Your task to perform on an android device: Turn on the flashlight Image 0: 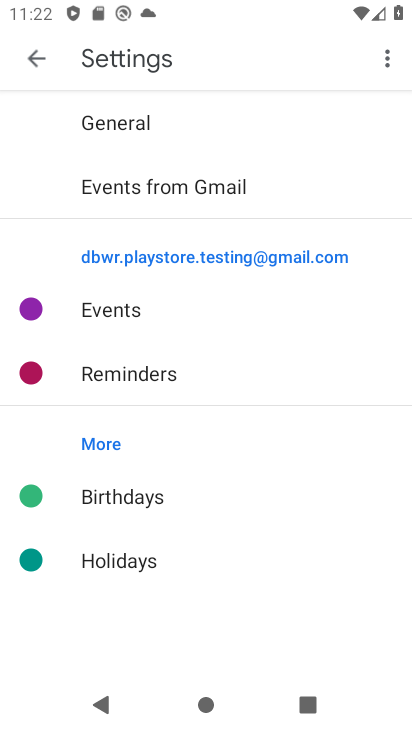
Step 0: press back button
Your task to perform on an android device: Turn on the flashlight Image 1: 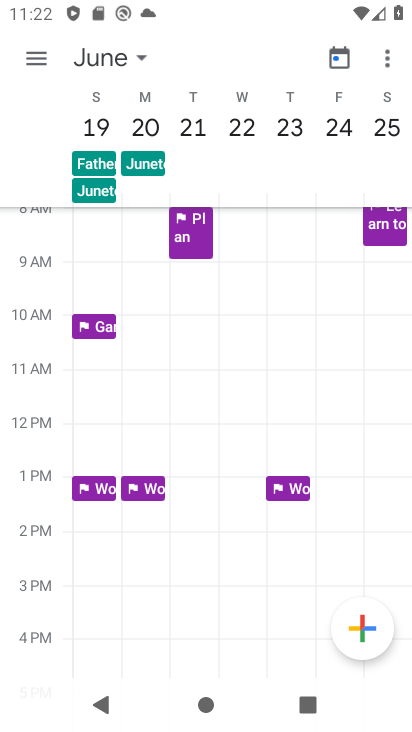
Step 1: press back button
Your task to perform on an android device: Turn on the flashlight Image 2: 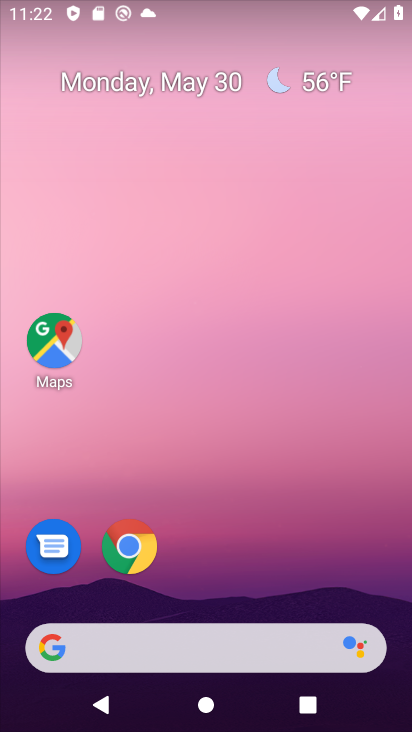
Step 2: drag from (263, 510) to (300, 238)
Your task to perform on an android device: Turn on the flashlight Image 3: 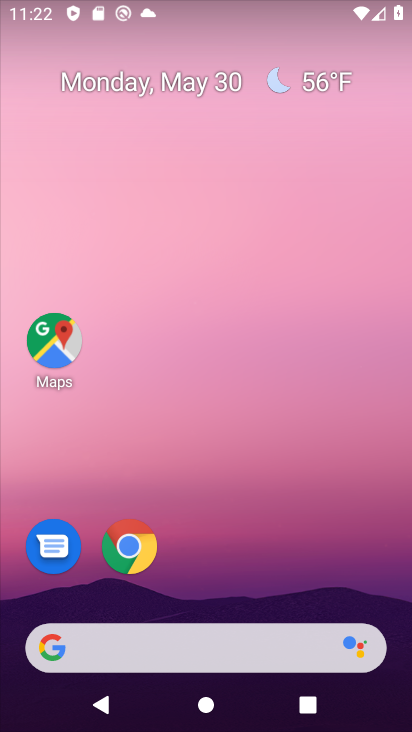
Step 3: drag from (273, 581) to (284, 44)
Your task to perform on an android device: Turn on the flashlight Image 4: 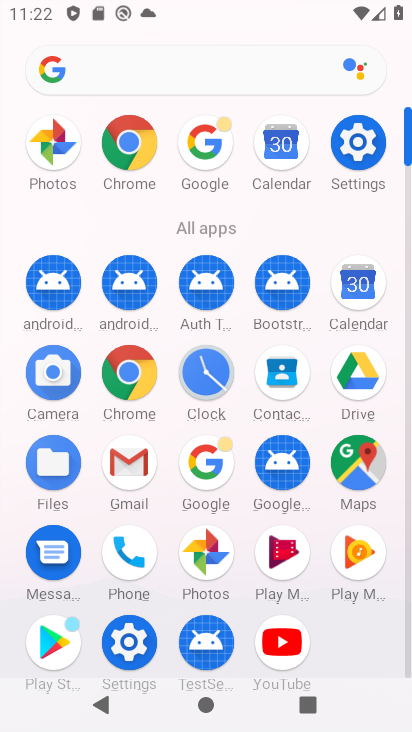
Step 4: click (128, 641)
Your task to perform on an android device: Turn on the flashlight Image 5: 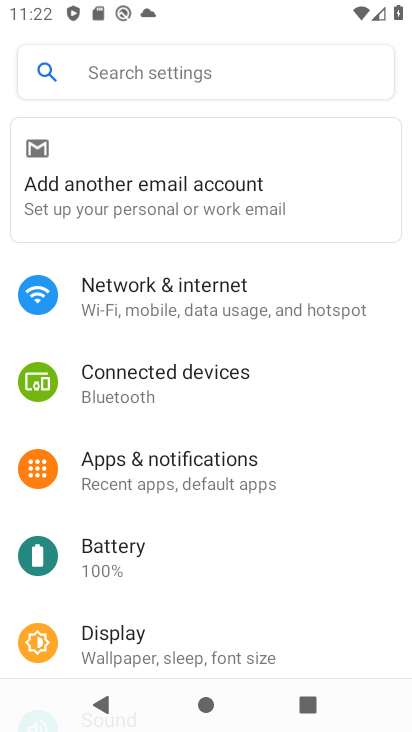
Step 5: drag from (183, 528) to (208, 434)
Your task to perform on an android device: Turn on the flashlight Image 6: 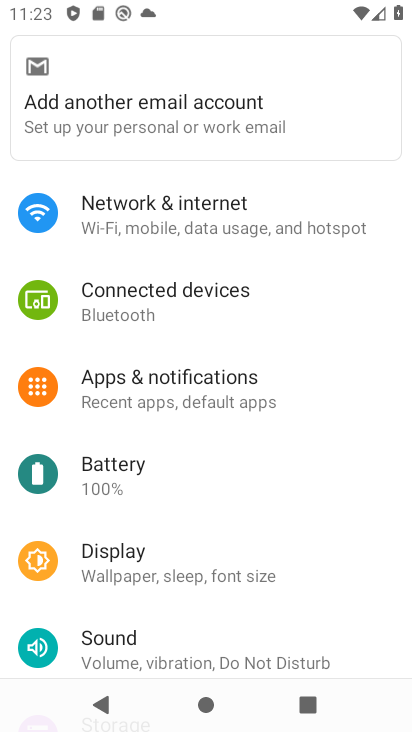
Step 6: drag from (213, 559) to (232, 474)
Your task to perform on an android device: Turn on the flashlight Image 7: 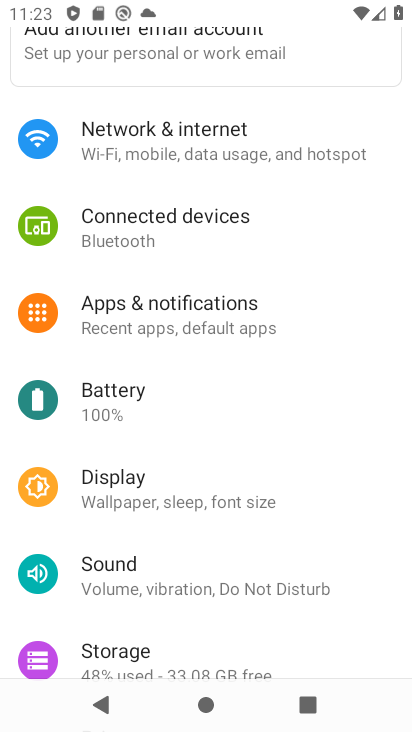
Step 7: drag from (199, 561) to (276, 440)
Your task to perform on an android device: Turn on the flashlight Image 8: 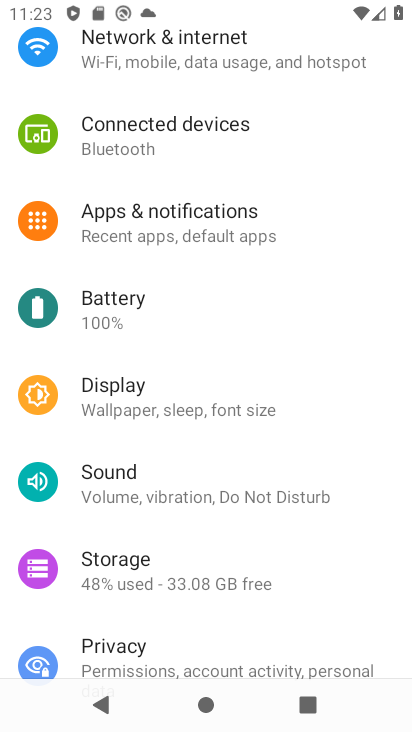
Step 8: drag from (205, 639) to (263, 517)
Your task to perform on an android device: Turn on the flashlight Image 9: 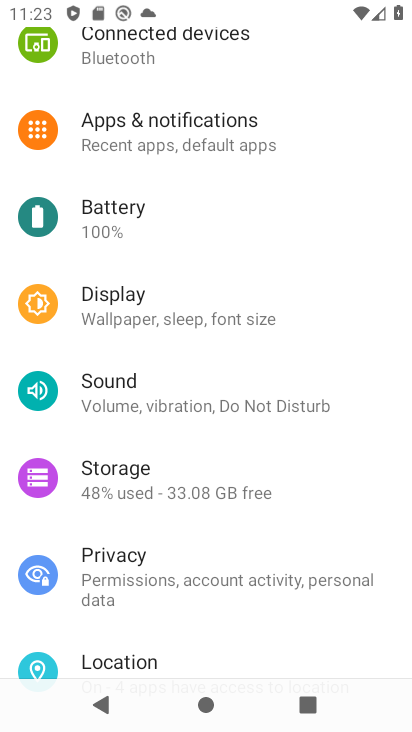
Step 9: drag from (222, 626) to (254, 512)
Your task to perform on an android device: Turn on the flashlight Image 10: 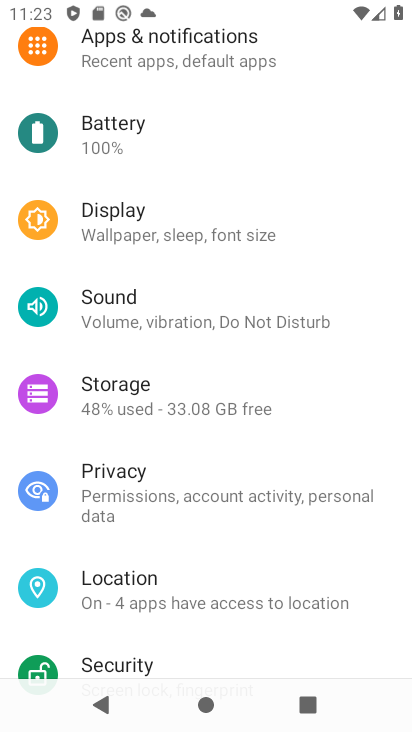
Step 10: drag from (222, 622) to (259, 516)
Your task to perform on an android device: Turn on the flashlight Image 11: 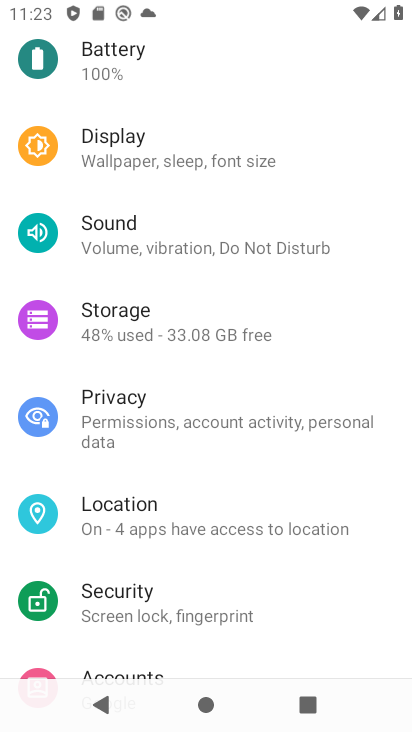
Step 11: drag from (195, 584) to (247, 475)
Your task to perform on an android device: Turn on the flashlight Image 12: 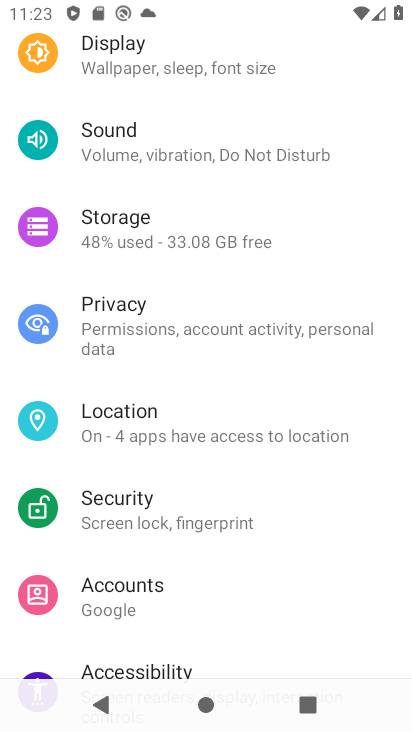
Step 12: drag from (204, 584) to (259, 477)
Your task to perform on an android device: Turn on the flashlight Image 13: 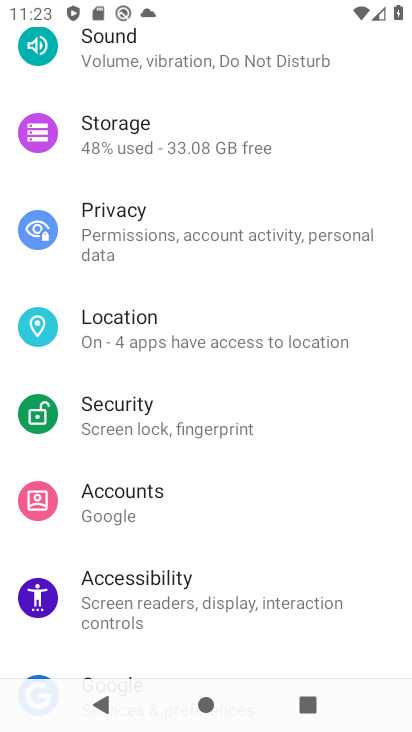
Step 13: drag from (252, 557) to (236, 461)
Your task to perform on an android device: Turn on the flashlight Image 14: 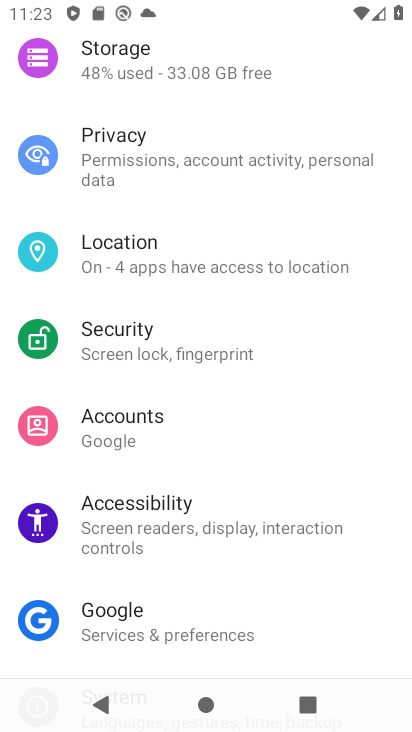
Step 14: click (198, 522)
Your task to perform on an android device: Turn on the flashlight Image 15: 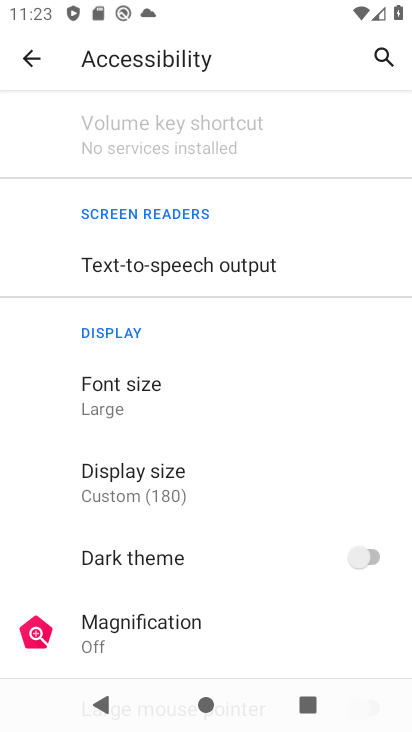
Step 15: drag from (193, 530) to (244, 446)
Your task to perform on an android device: Turn on the flashlight Image 16: 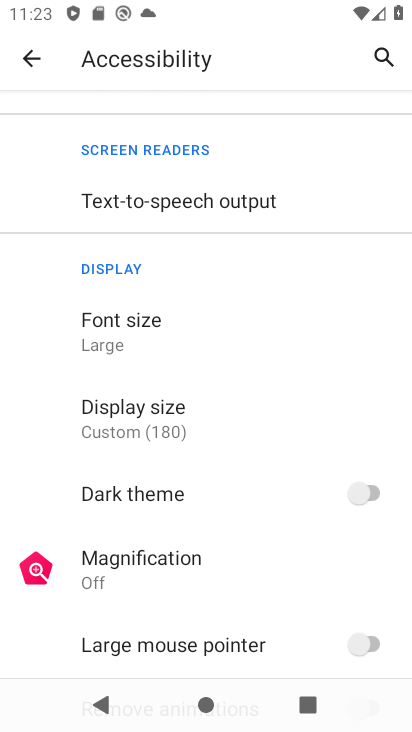
Step 16: drag from (158, 620) to (227, 503)
Your task to perform on an android device: Turn on the flashlight Image 17: 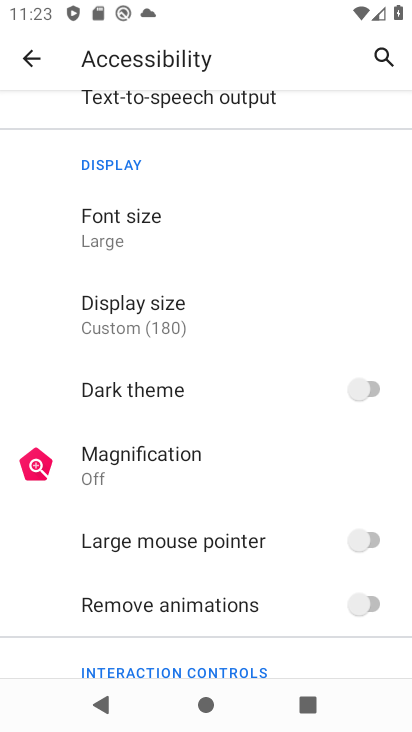
Step 17: drag from (158, 588) to (202, 481)
Your task to perform on an android device: Turn on the flashlight Image 18: 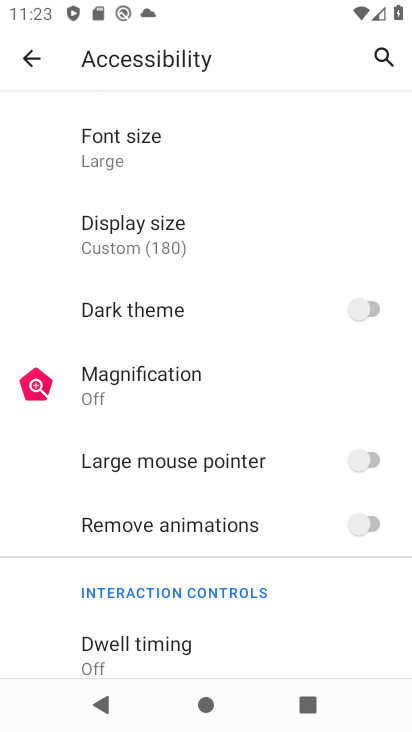
Step 18: drag from (161, 575) to (202, 438)
Your task to perform on an android device: Turn on the flashlight Image 19: 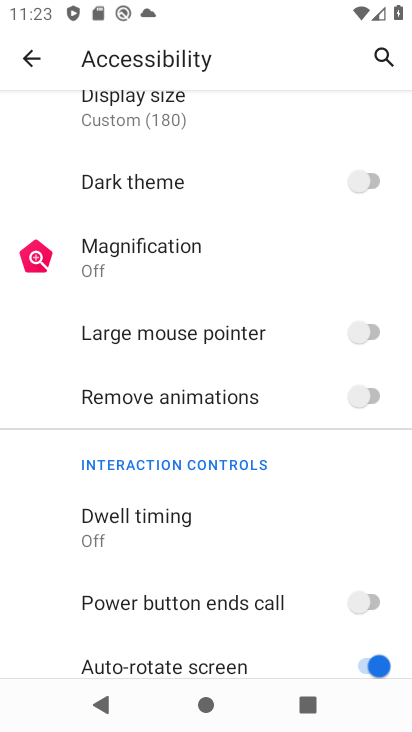
Step 19: drag from (162, 557) to (203, 455)
Your task to perform on an android device: Turn on the flashlight Image 20: 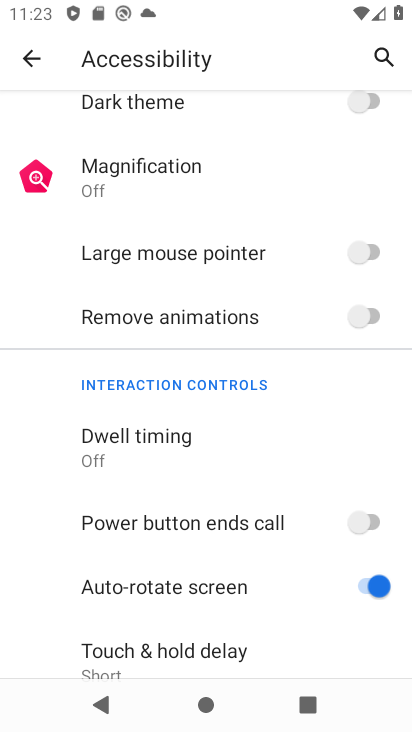
Step 20: drag from (175, 547) to (219, 451)
Your task to perform on an android device: Turn on the flashlight Image 21: 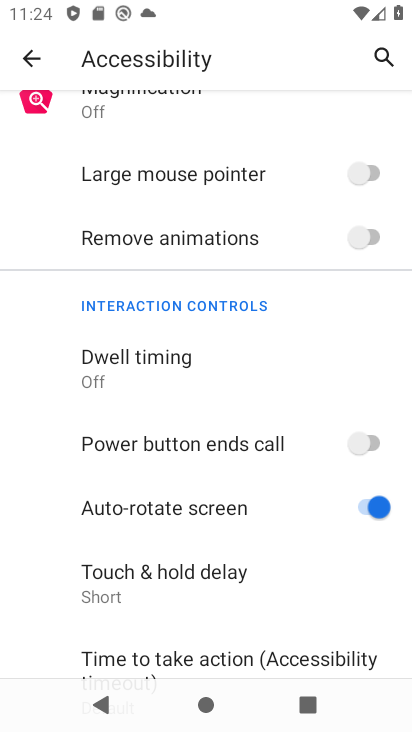
Step 21: drag from (245, 554) to (293, 477)
Your task to perform on an android device: Turn on the flashlight Image 22: 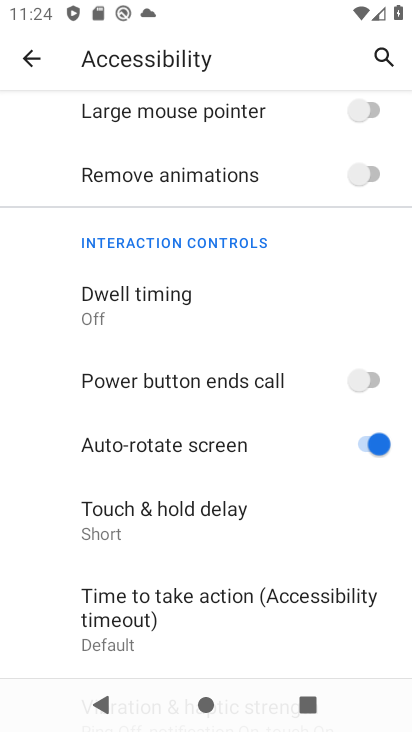
Step 22: drag from (175, 563) to (214, 431)
Your task to perform on an android device: Turn on the flashlight Image 23: 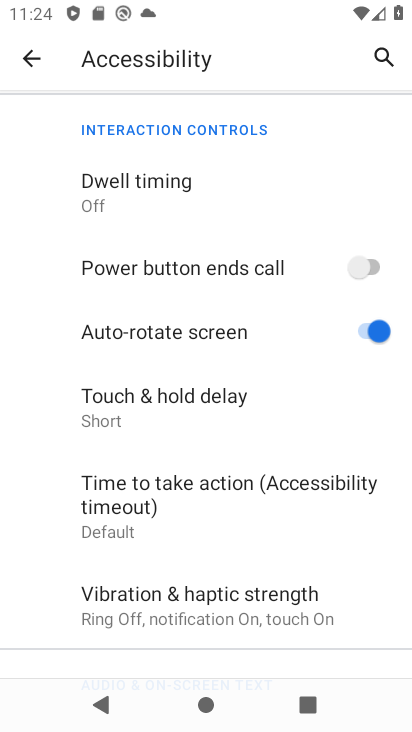
Step 23: drag from (185, 452) to (233, 288)
Your task to perform on an android device: Turn on the flashlight Image 24: 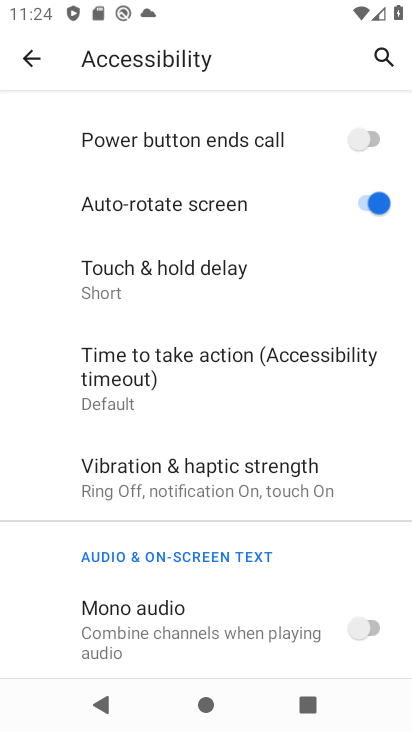
Step 24: click (14, 57)
Your task to perform on an android device: Turn on the flashlight Image 25: 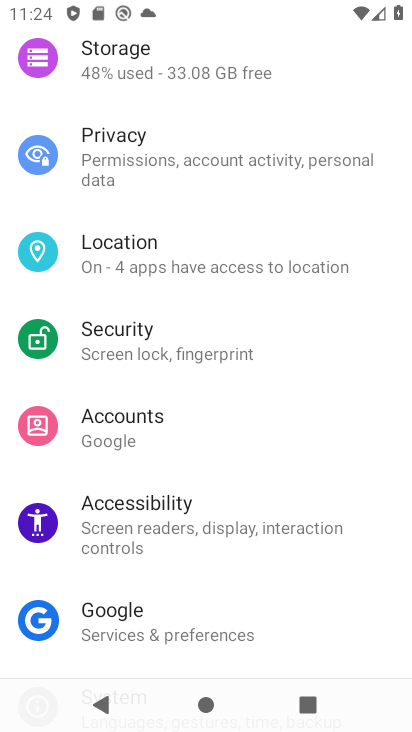
Step 25: drag from (256, 312) to (278, 474)
Your task to perform on an android device: Turn on the flashlight Image 26: 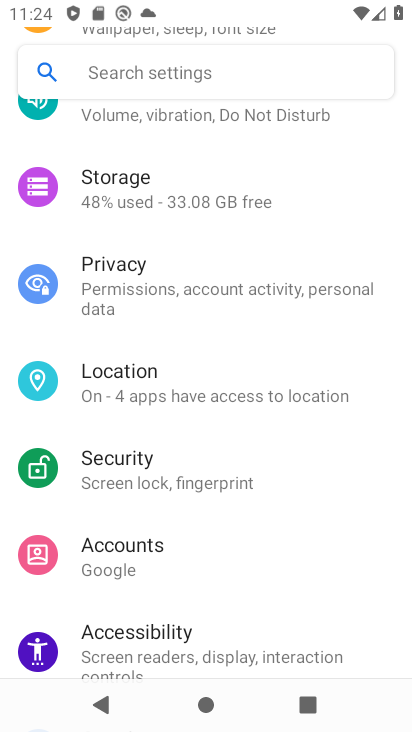
Step 26: drag from (215, 233) to (235, 390)
Your task to perform on an android device: Turn on the flashlight Image 27: 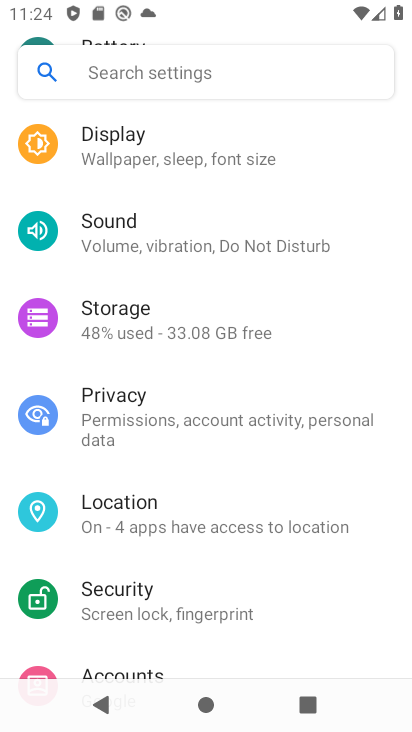
Step 27: drag from (176, 374) to (164, 587)
Your task to perform on an android device: Turn on the flashlight Image 28: 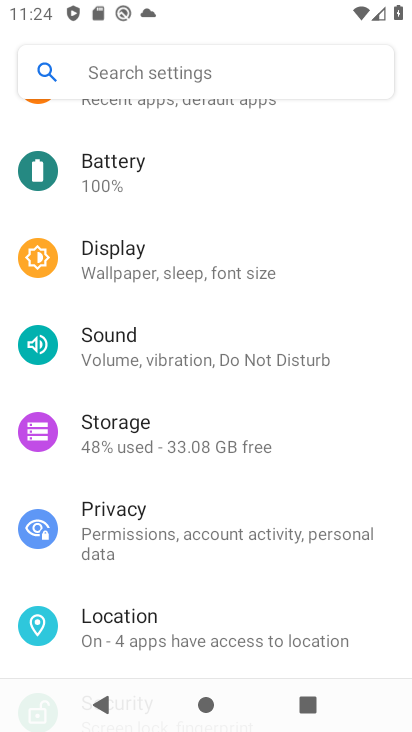
Step 28: drag from (187, 329) to (177, 524)
Your task to perform on an android device: Turn on the flashlight Image 29: 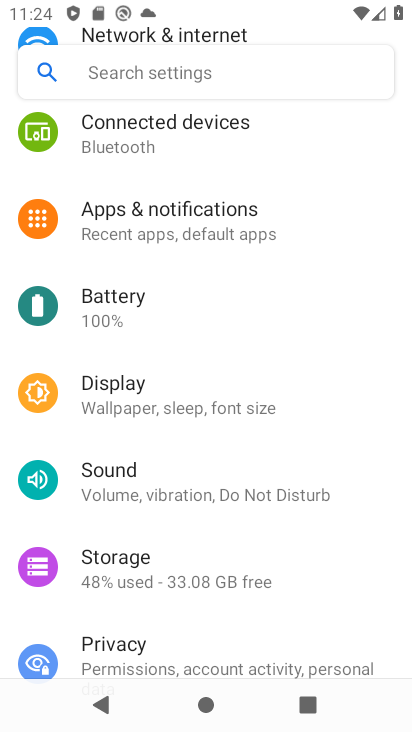
Step 29: drag from (202, 304) to (214, 494)
Your task to perform on an android device: Turn on the flashlight Image 30: 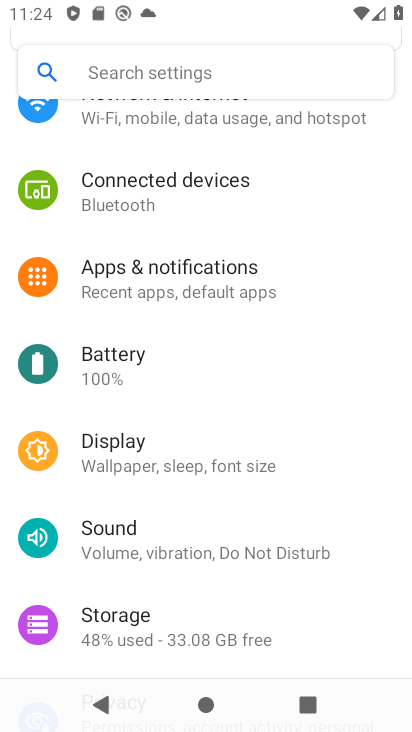
Step 30: drag from (212, 350) to (179, 553)
Your task to perform on an android device: Turn on the flashlight Image 31: 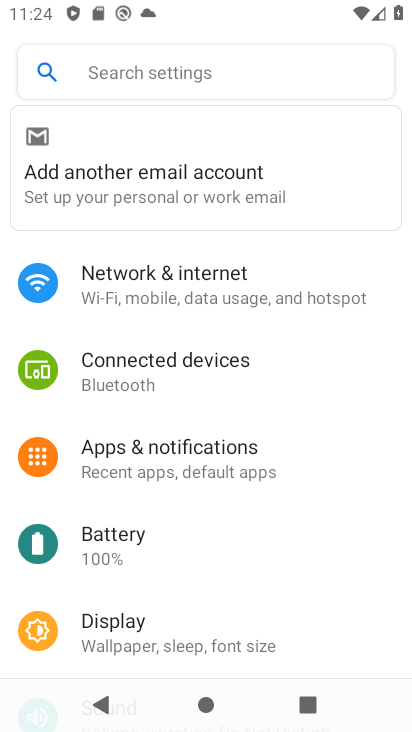
Step 31: drag from (173, 585) to (257, 350)
Your task to perform on an android device: Turn on the flashlight Image 32: 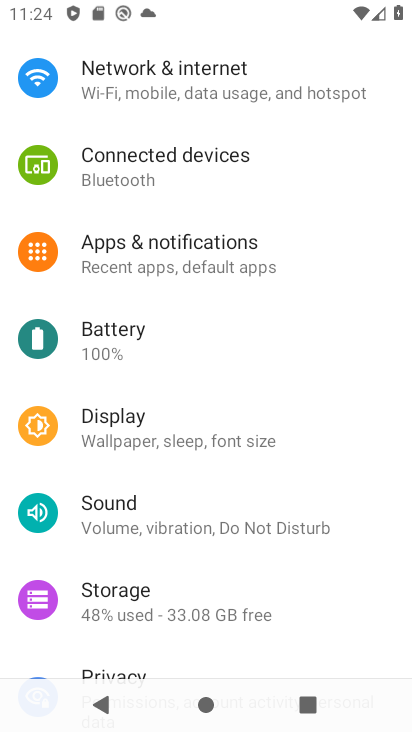
Step 32: drag from (183, 536) to (262, 319)
Your task to perform on an android device: Turn on the flashlight Image 33: 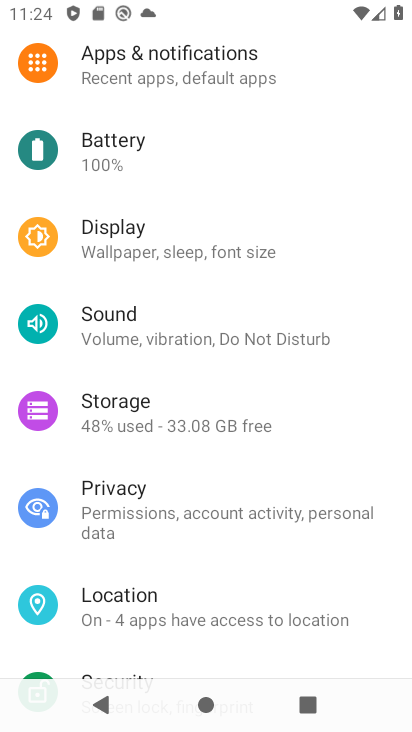
Step 33: drag from (232, 246) to (272, 321)
Your task to perform on an android device: Turn on the flashlight Image 34: 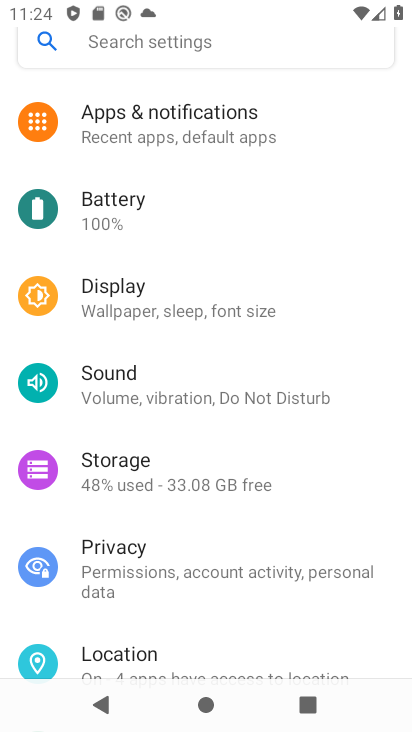
Step 34: click (272, 321)
Your task to perform on an android device: Turn on the flashlight Image 35: 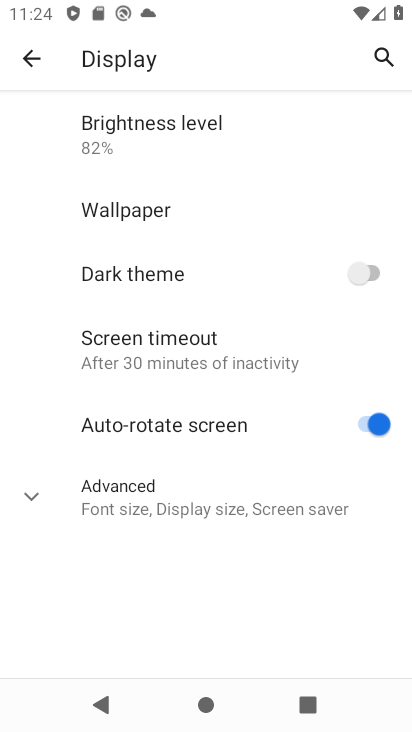
Step 35: click (246, 513)
Your task to perform on an android device: Turn on the flashlight Image 36: 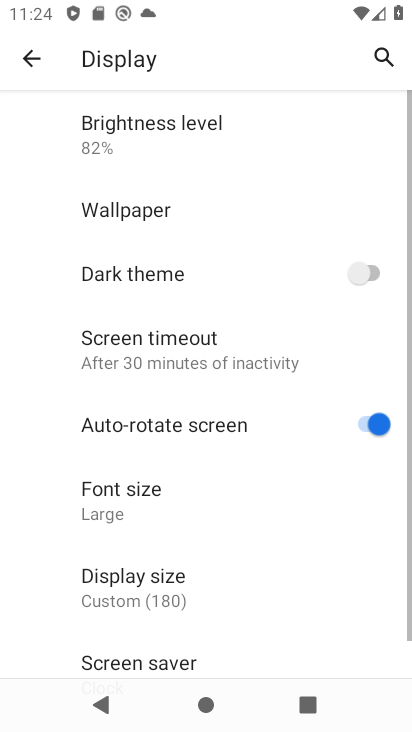
Step 36: task complete